Your task to perform on an android device: Open Chrome and go to settings Image 0: 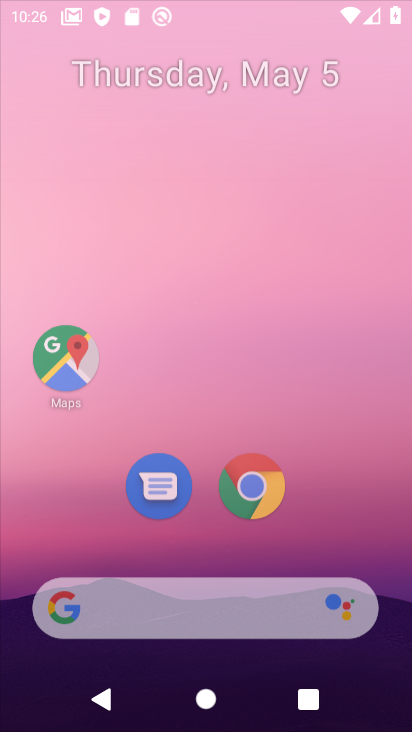
Step 0: drag from (376, 170) to (373, 46)
Your task to perform on an android device: Open Chrome and go to settings Image 1: 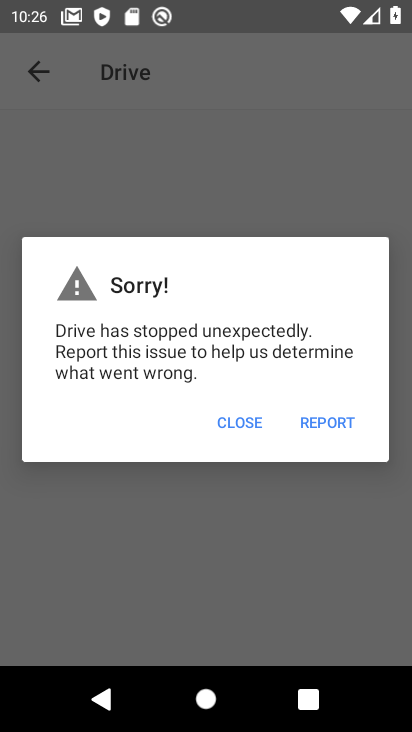
Step 1: press home button
Your task to perform on an android device: Open Chrome and go to settings Image 2: 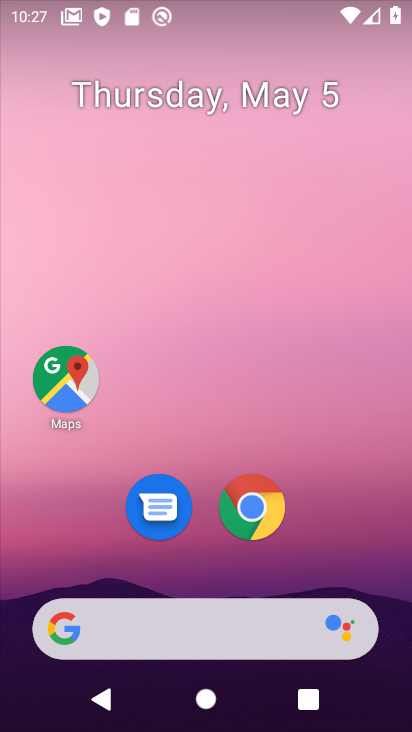
Step 2: click (253, 502)
Your task to perform on an android device: Open Chrome and go to settings Image 3: 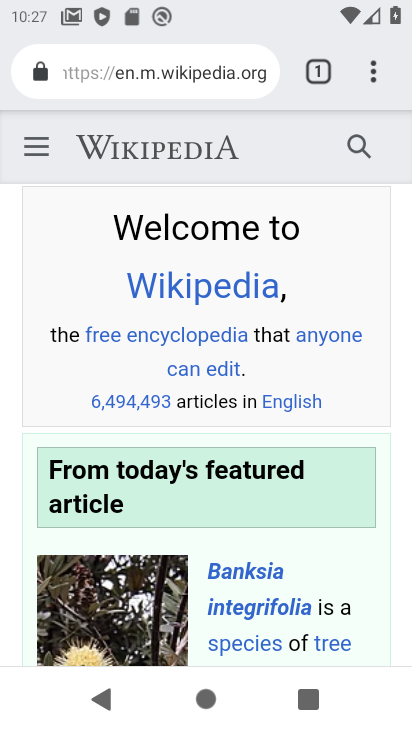
Step 3: task complete